Your task to perform on an android device: Check the news Image 0: 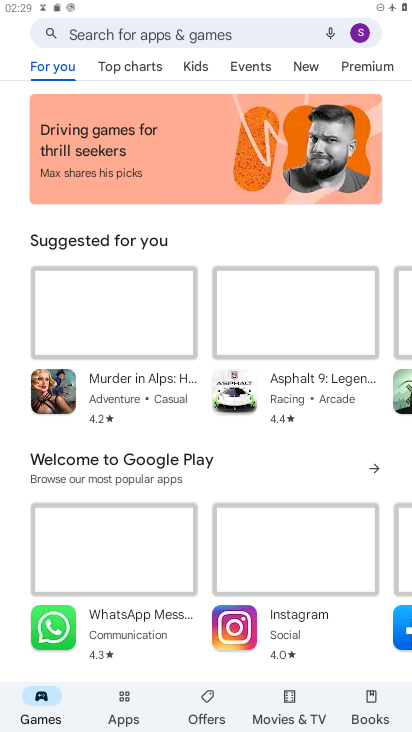
Step 0: press home button
Your task to perform on an android device: Check the news Image 1: 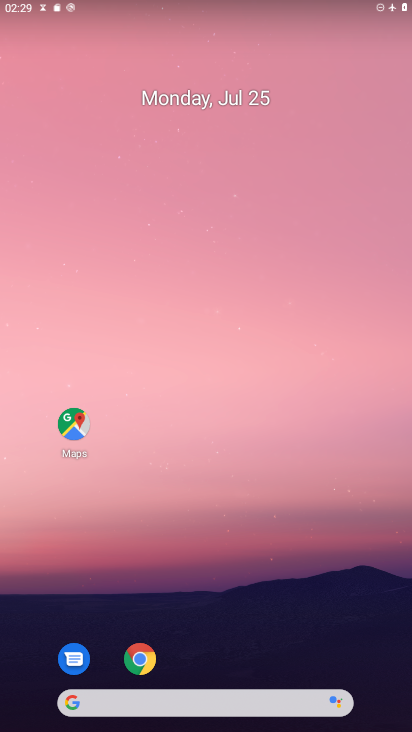
Step 1: click (135, 647)
Your task to perform on an android device: Check the news Image 2: 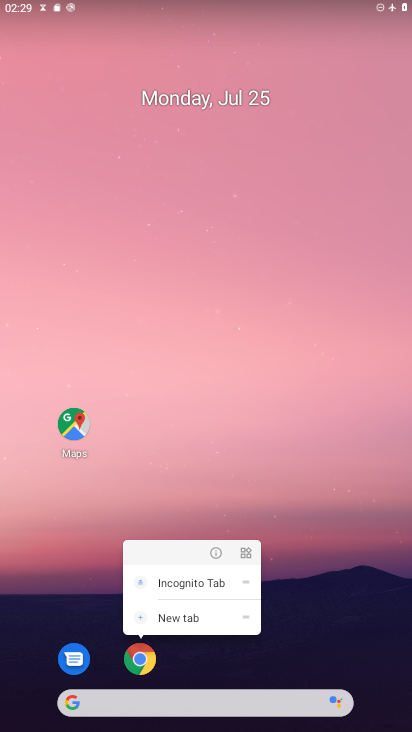
Step 2: click (139, 664)
Your task to perform on an android device: Check the news Image 3: 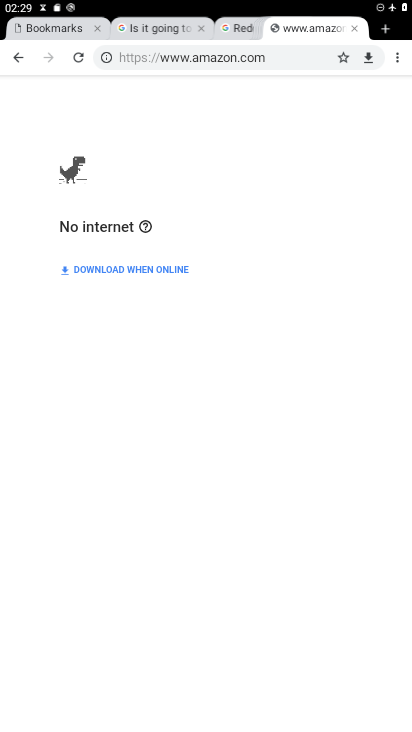
Step 3: click (389, 29)
Your task to perform on an android device: Check the news Image 4: 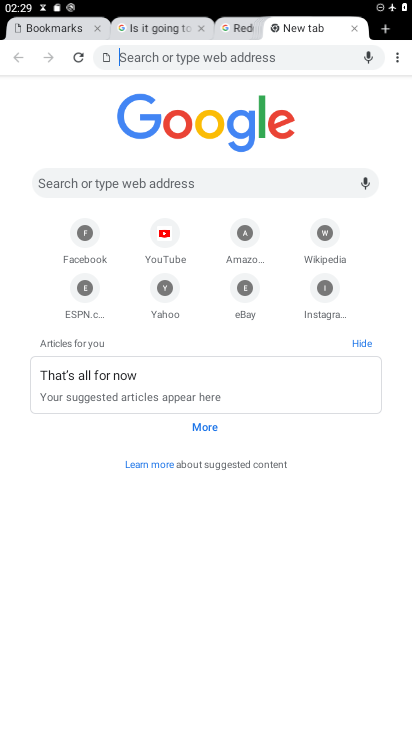
Step 4: click (165, 174)
Your task to perform on an android device: Check the news Image 5: 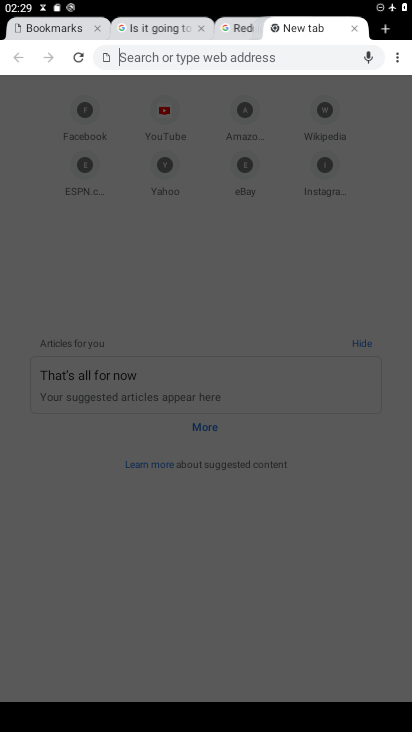
Step 5: type "Check the news "
Your task to perform on an android device: Check the news Image 6: 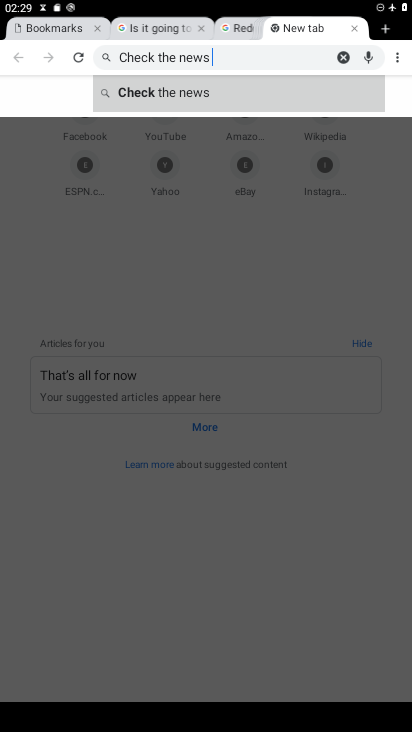
Step 6: click (193, 98)
Your task to perform on an android device: Check the news Image 7: 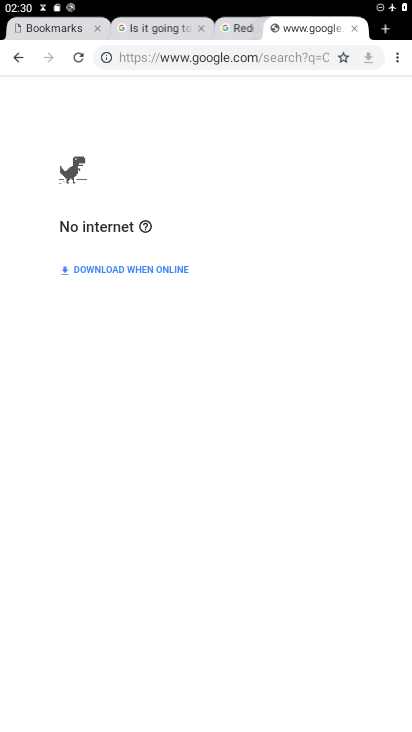
Step 7: task complete